Your task to perform on an android device: change the clock style Image 0: 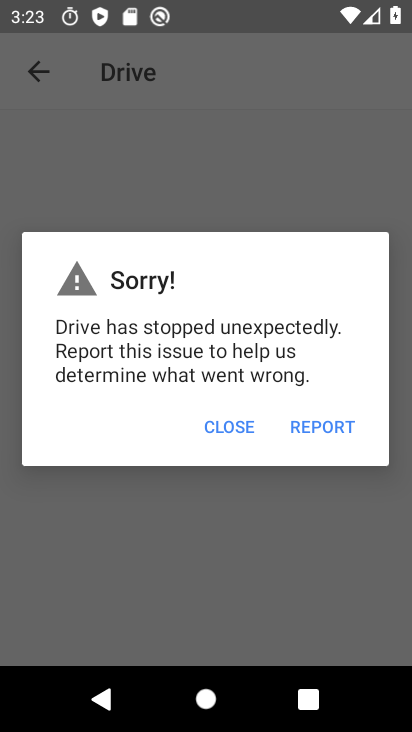
Step 0: press home button
Your task to perform on an android device: change the clock style Image 1: 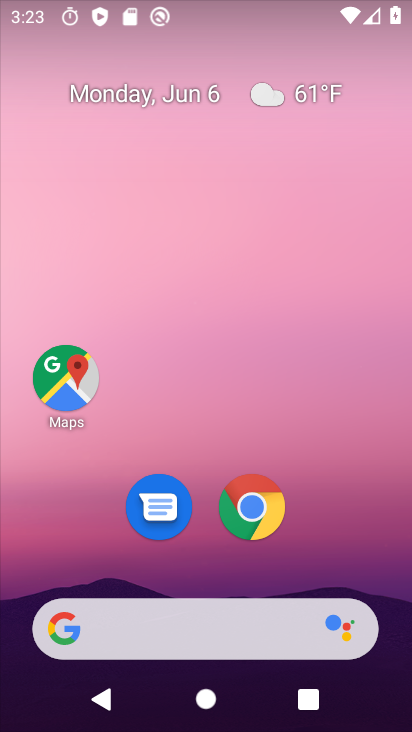
Step 1: drag from (202, 566) to (212, 190)
Your task to perform on an android device: change the clock style Image 2: 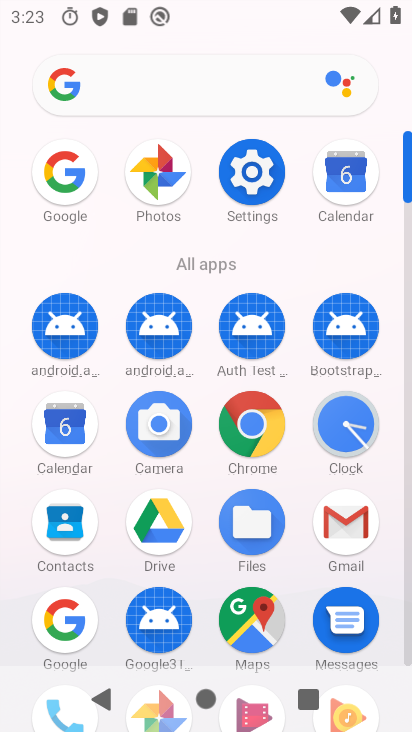
Step 2: click (323, 426)
Your task to perform on an android device: change the clock style Image 3: 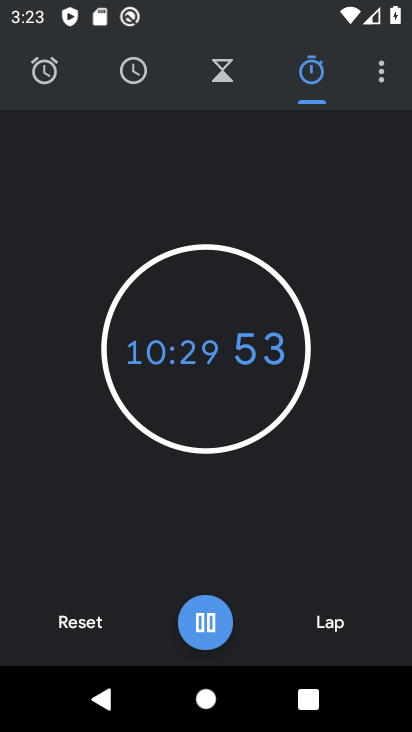
Step 3: click (375, 78)
Your task to perform on an android device: change the clock style Image 4: 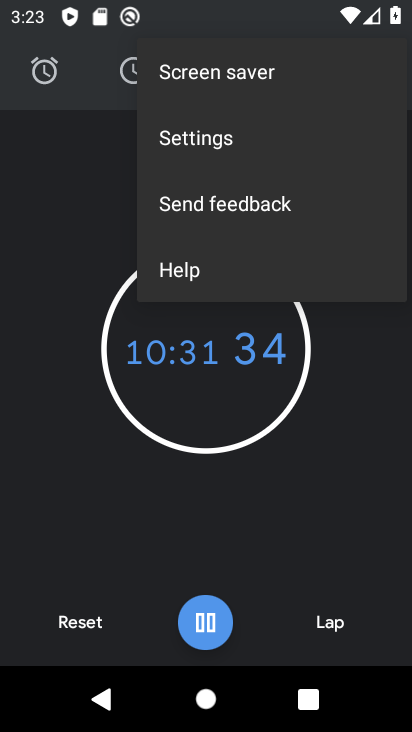
Step 4: click (275, 134)
Your task to perform on an android device: change the clock style Image 5: 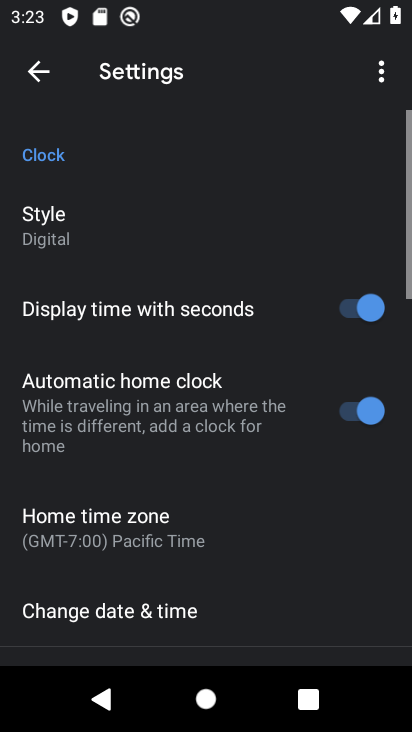
Step 5: click (102, 224)
Your task to perform on an android device: change the clock style Image 6: 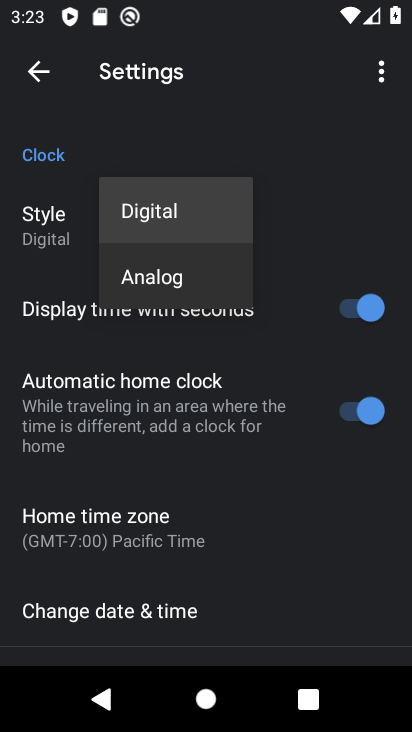
Step 6: click (127, 275)
Your task to perform on an android device: change the clock style Image 7: 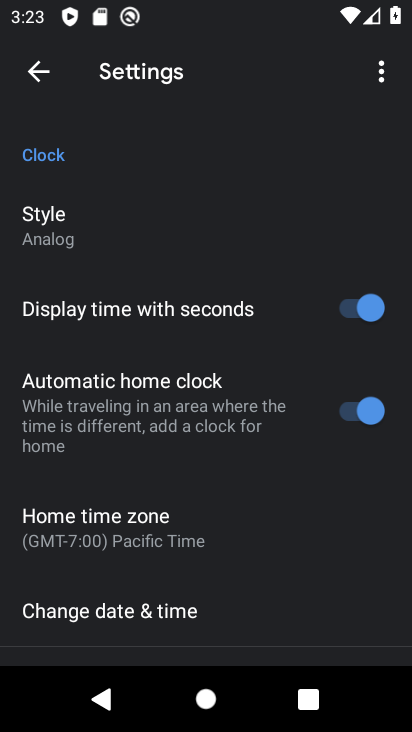
Step 7: task complete